Your task to perform on an android device: move a message to another label in the gmail app Image 0: 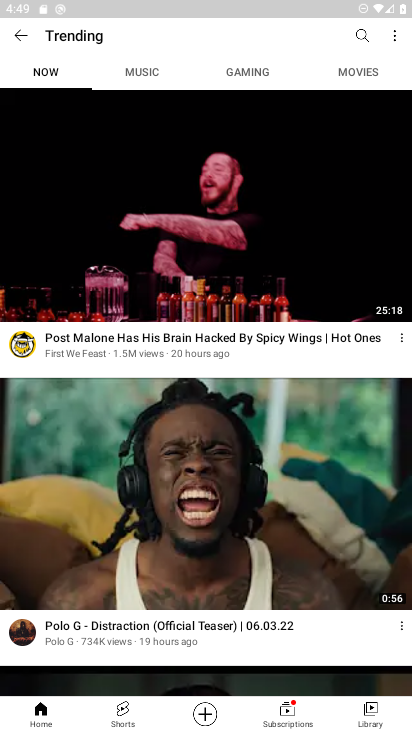
Step 0: press back button
Your task to perform on an android device: move a message to another label in the gmail app Image 1: 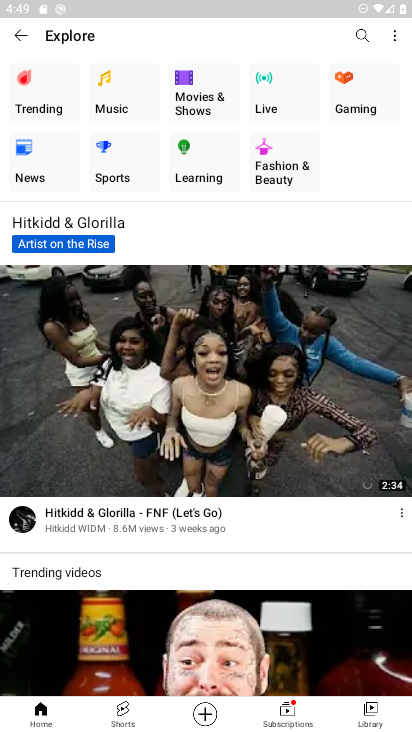
Step 1: press back button
Your task to perform on an android device: move a message to another label in the gmail app Image 2: 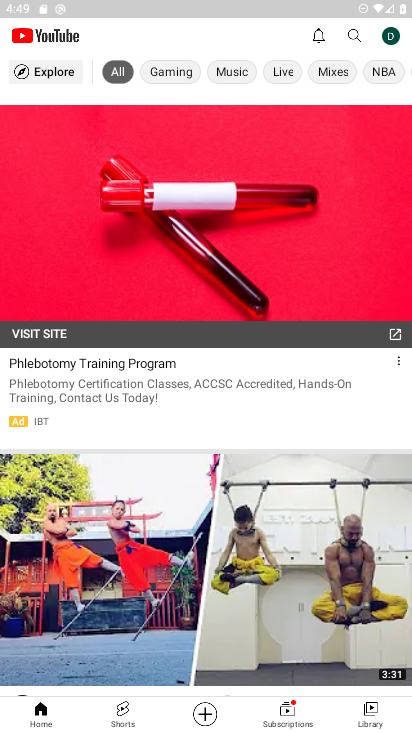
Step 2: press back button
Your task to perform on an android device: move a message to another label in the gmail app Image 3: 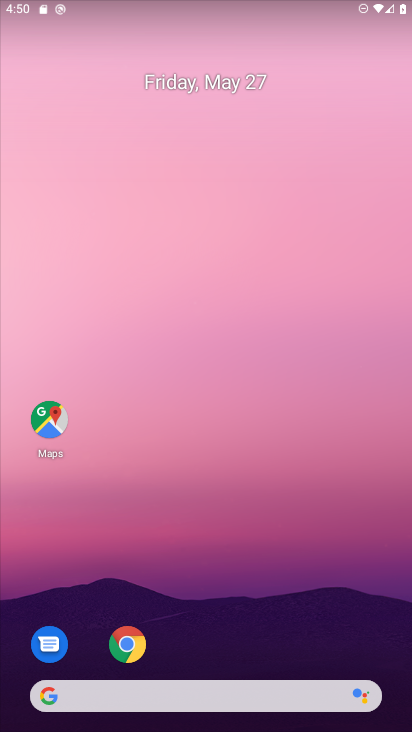
Step 3: drag from (261, 632) to (135, 246)
Your task to perform on an android device: move a message to another label in the gmail app Image 4: 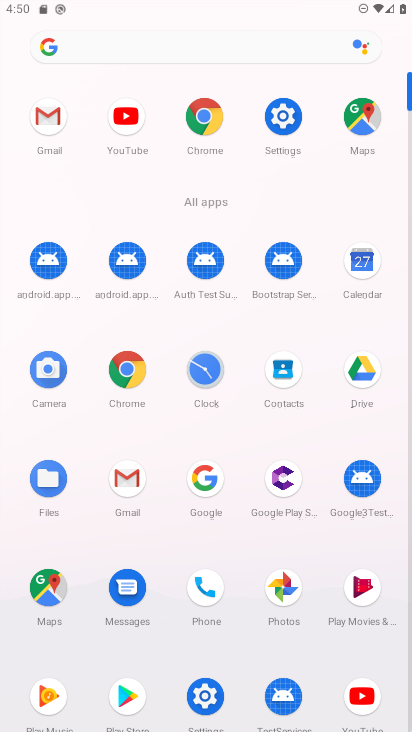
Step 4: click (45, 111)
Your task to perform on an android device: move a message to another label in the gmail app Image 5: 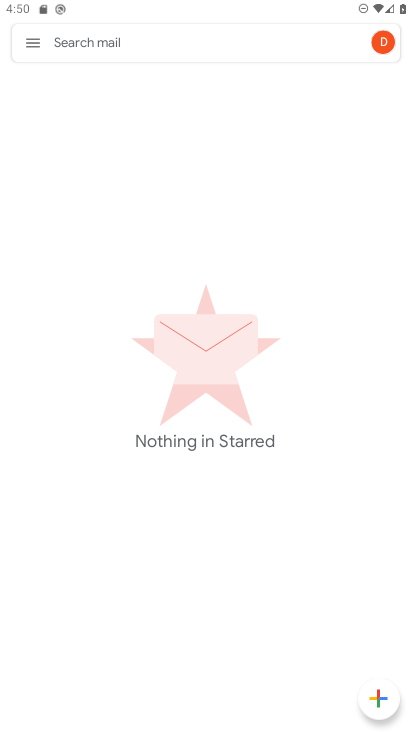
Step 5: click (16, 37)
Your task to perform on an android device: move a message to another label in the gmail app Image 6: 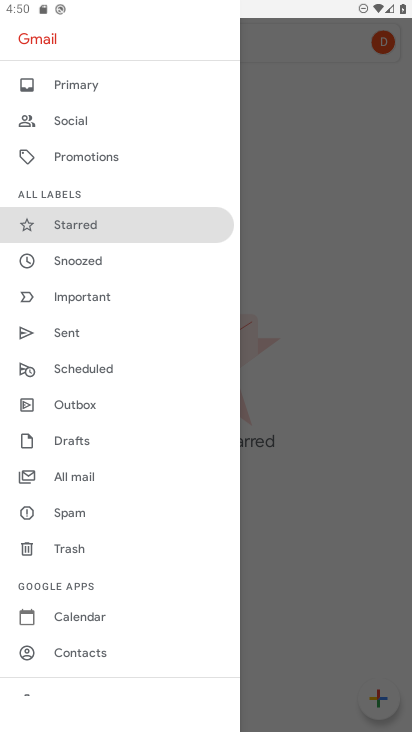
Step 6: click (88, 483)
Your task to perform on an android device: move a message to another label in the gmail app Image 7: 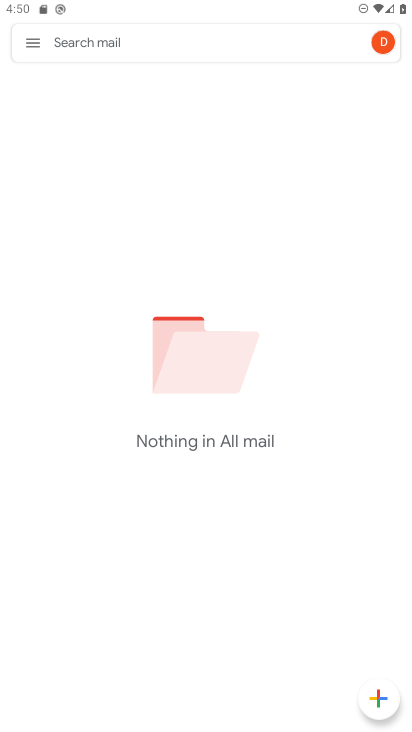
Step 7: task complete